Your task to perform on an android device: open a new tab in the chrome app Image 0: 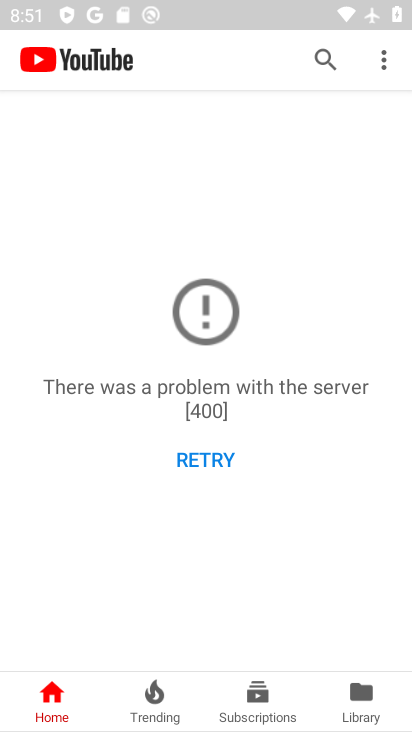
Step 0: press home button
Your task to perform on an android device: open a new tab in the chrome app Image 1: 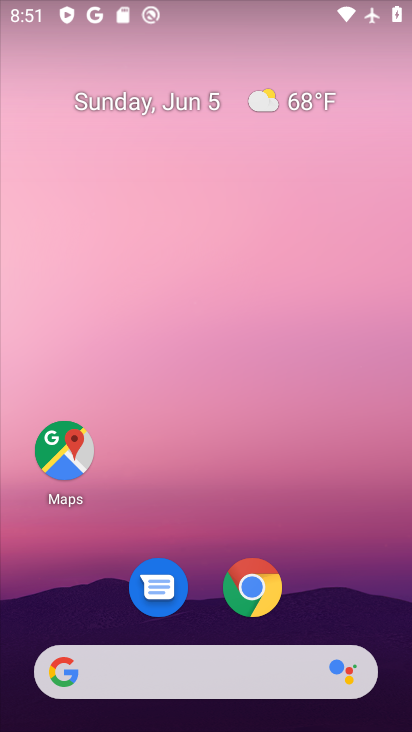
Step 1: click (269, 586)
Your task to perform on an android device: open a new tab in the chrome app Image 2: 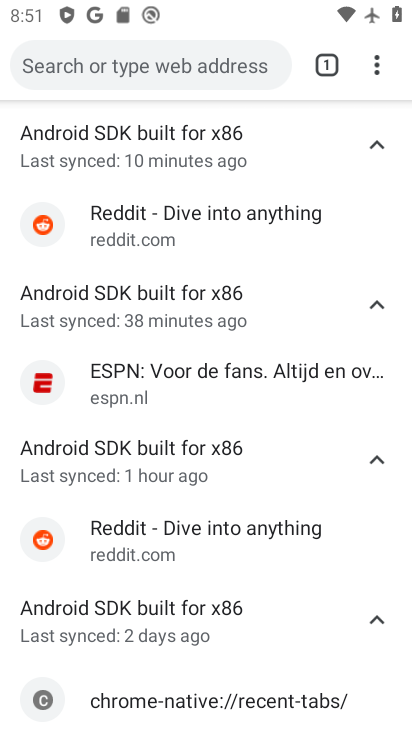
Step 2: click (372, 60)
Your task to perform on an android device: open a new tab in the chrome app Image 3: 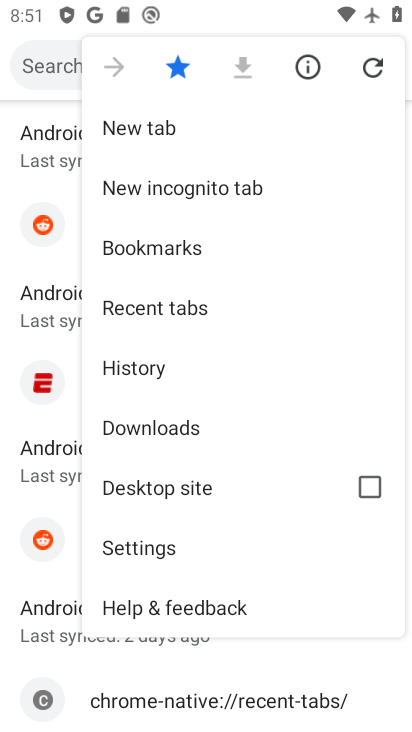
Step 3: click (177, 133)
Your task to perform on an android device: open a new tab in the chrome app Image 4: 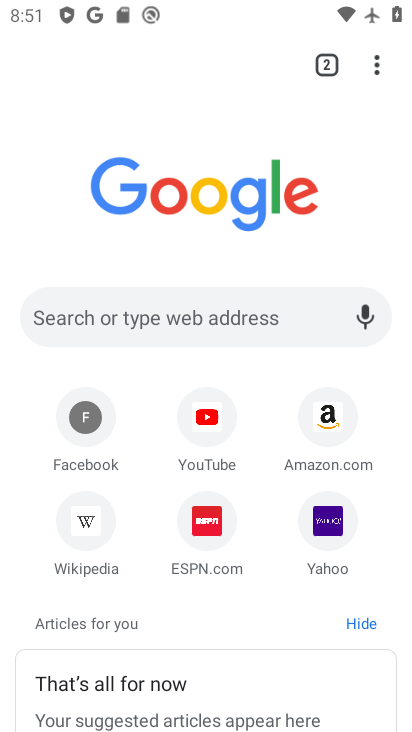
Step 4: task complete